Your task to perform on an android device: toggle location history Image 0: 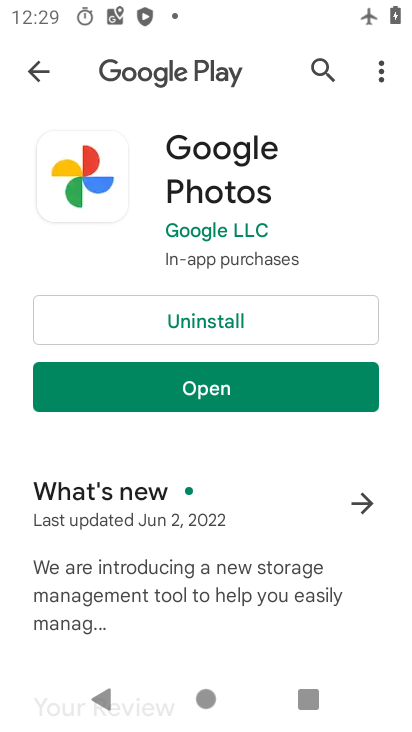
Step 0: press home button
Your task to perform on an android device: toggle location history Image 1: 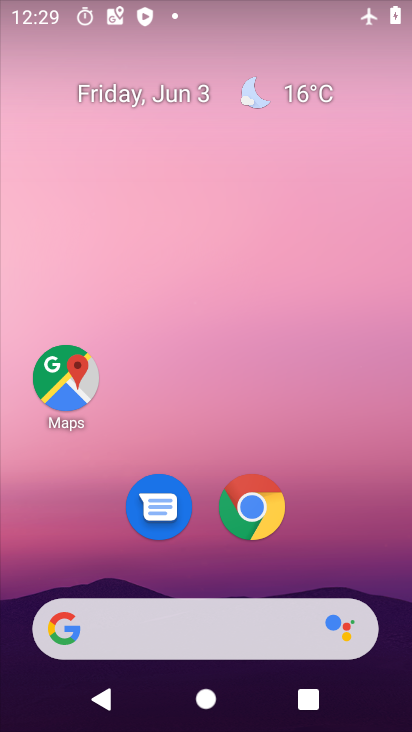
Step 1: drag from (384, 639) to (293, 73)
Your task to perform on an android device: toggle location history Image 2: 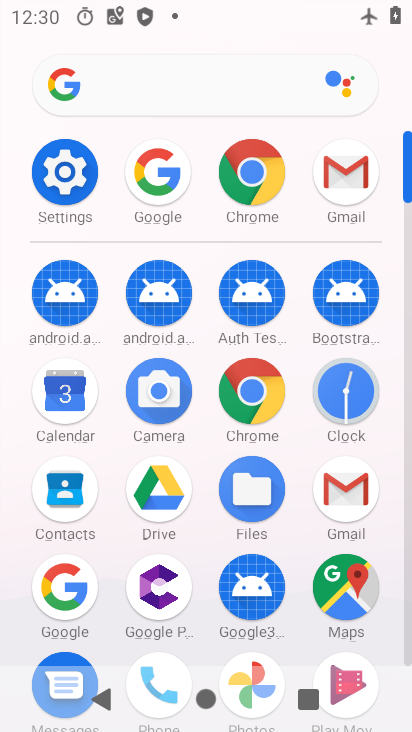
Step 2: click (82, 200)
Your task to perform on an android device: toggle location history Image 3: 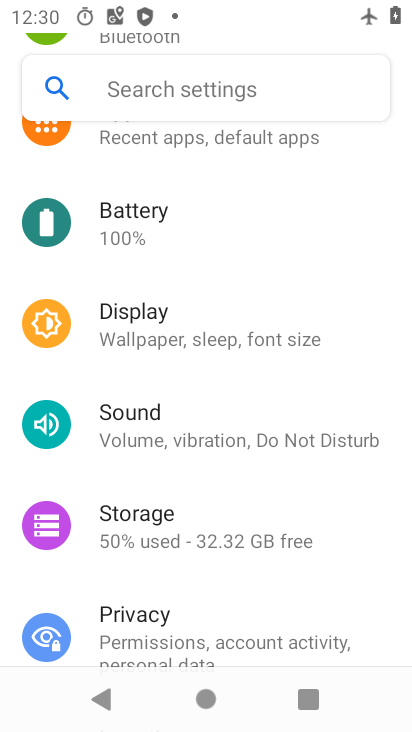
Step 3: drag from (194, 228) to (187, 578)
Your task to perform on an android device: toggle location history Image 4: 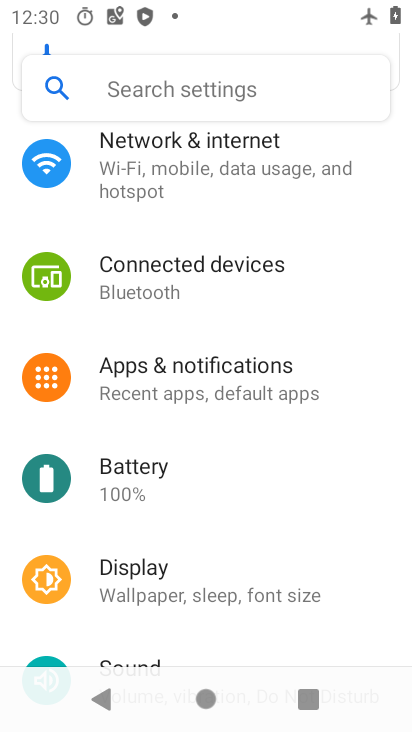
Step 4: drag from (185, 576) to (170, 85)
Your task to perform on an android device: toggle location history Image 5: 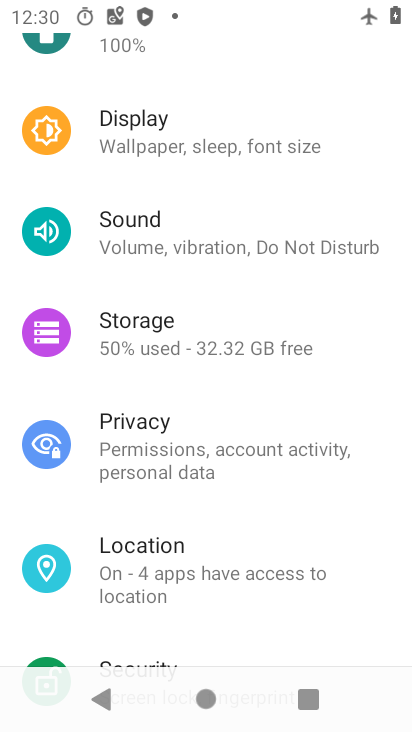
Step 5: click (130, 543)
Your task to perform on an android device: toggle location history Image 6: 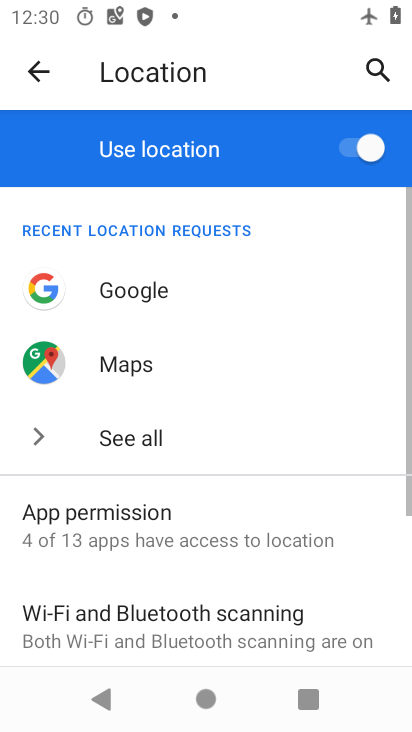
Step 6: drag from (170, 596) to (195, 302)
Your task to perform on an android device: toggle location history Image 7: 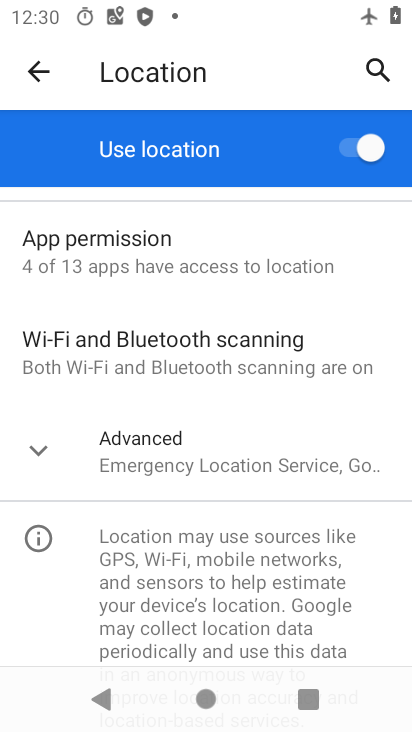
Step 7: click (144, 463)
Your task to perform on an android device: toggle location history Image 8: 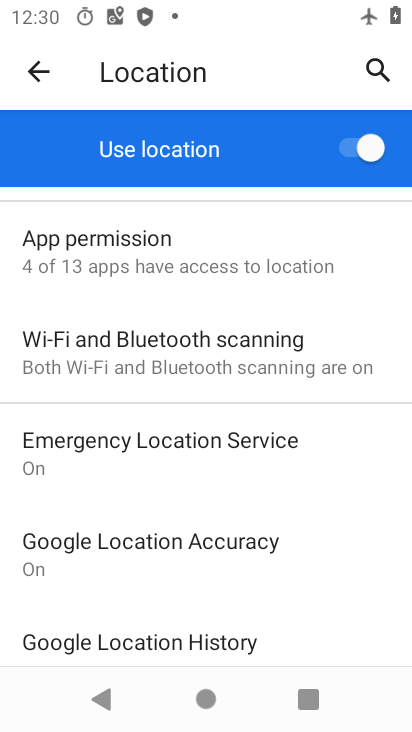
Step 8: click (207, 633)
Your task to perform on an android device: toggle location history Image 9: 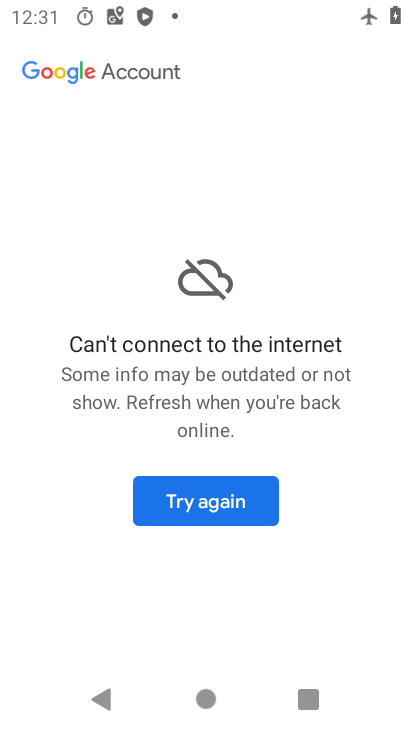
Step 9: task complete